Your task to perform on an android device: toggle priority inbox in the gmail app Image 0: 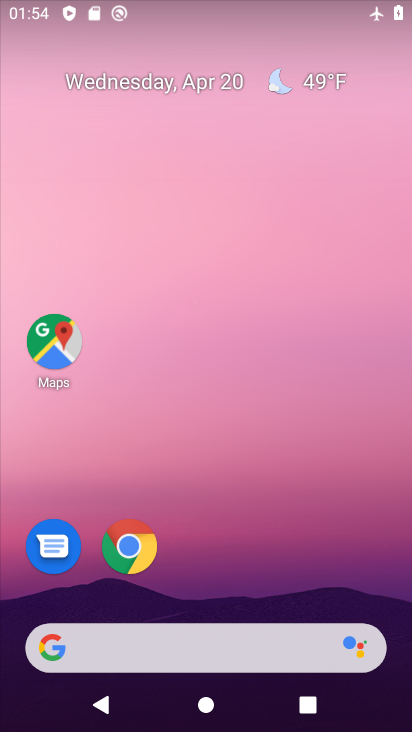
Step 0: drag from (235, 486) to (226, 253)
Your task to perform on an android device: toggle priority inbox in the gmail app Image 1: 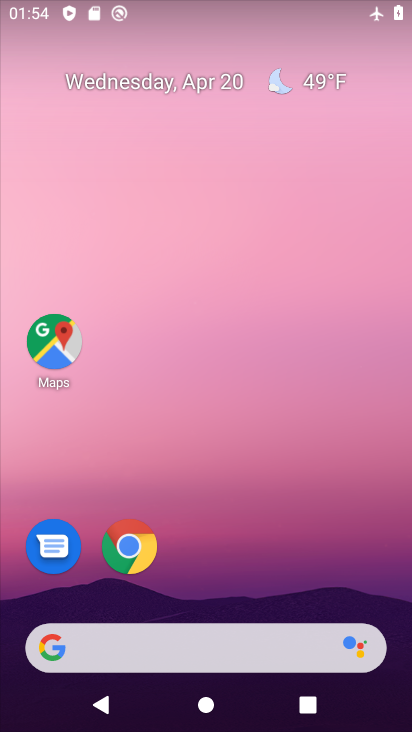
Step 1: drag from (224, 619) to (294, 225)
Your task to perform on an android device: toggle priority inbox in the gmail app Image 2: 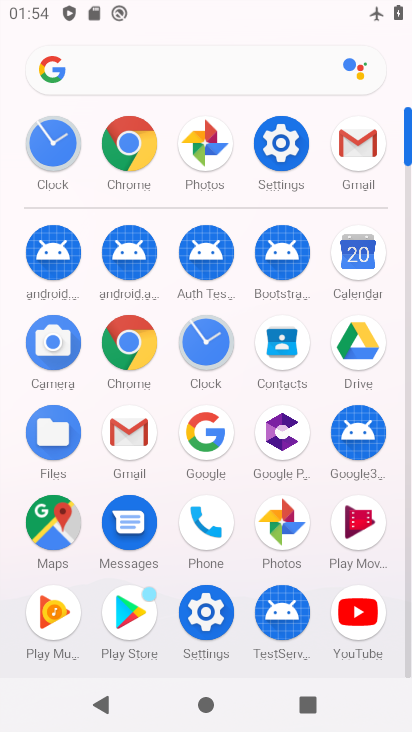
Step 2: click (358, 158)
Your task to perform on an android device: toggle priority inbox in the gmail app Image 3: 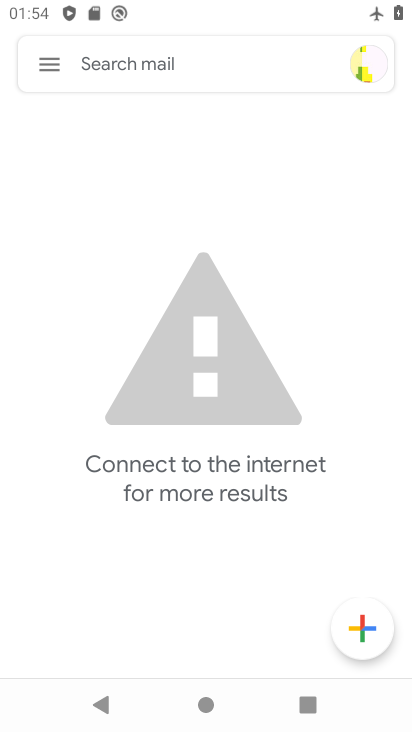
Step 3: click (51, 62)
Your task to perform on an android device: toggle priority inbox in the gmail app Image 4: 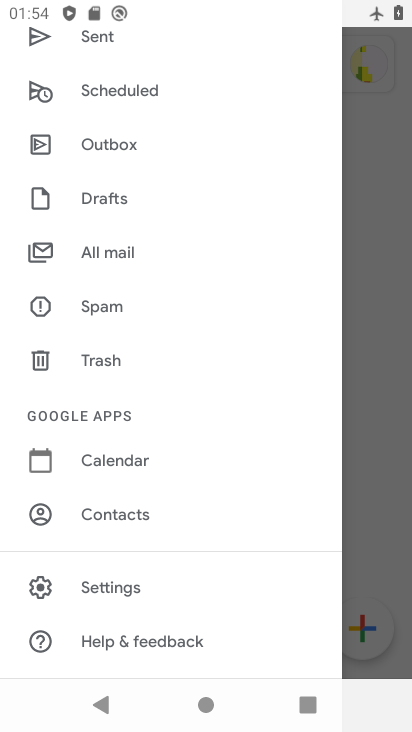
Step 4: click (160, 578)
Your task to perform on an android device: toggle priority inbox in the gmail app Image 5: 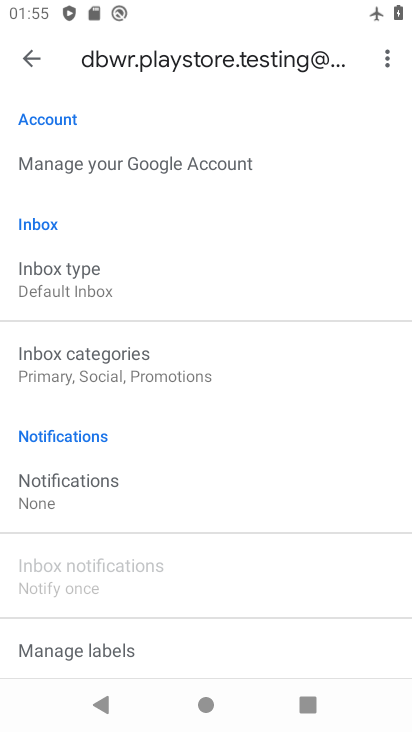
Step 5: click (95, 268)
Your task to perform on an android device: toggle priority inbox in the gmail app Image 6: 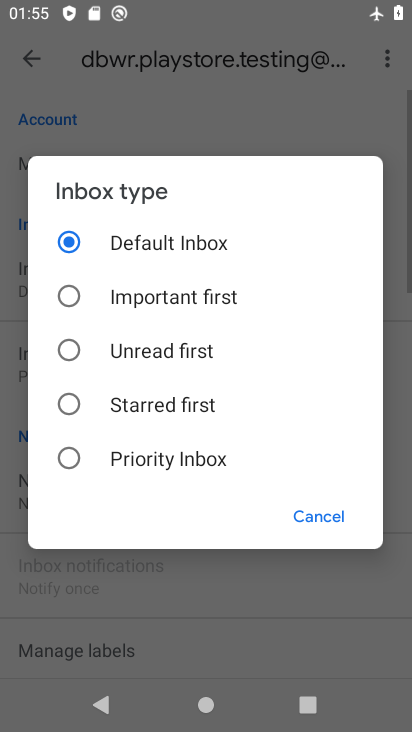
Step 6: click (191, 457)
Your task to perform on an android device: toggle priority inbox in the gmail app Image 7: 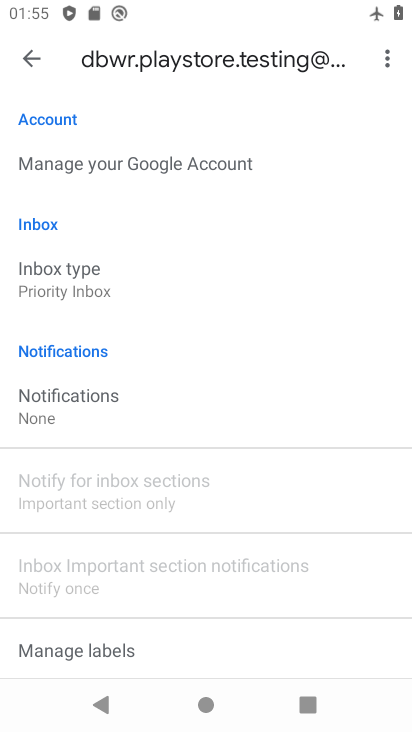
Step 7: task complete